Your task to perform on an android device: Open location settings Image 0: 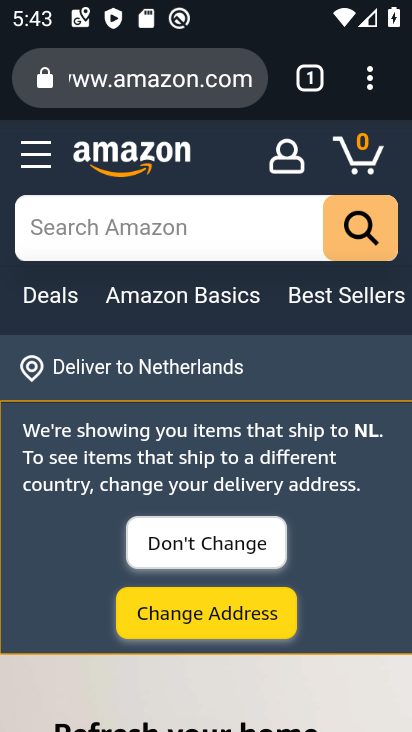
Step 0: press home button
Your task to perform on an android device: Open location settings Image 1: 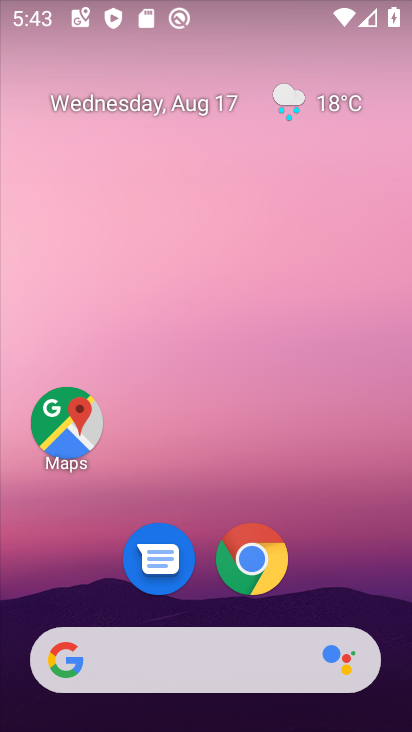
Step 1: drag from (252, 635) to (189, 46)
Your task to perform on an android device: Open location settings Image 2: 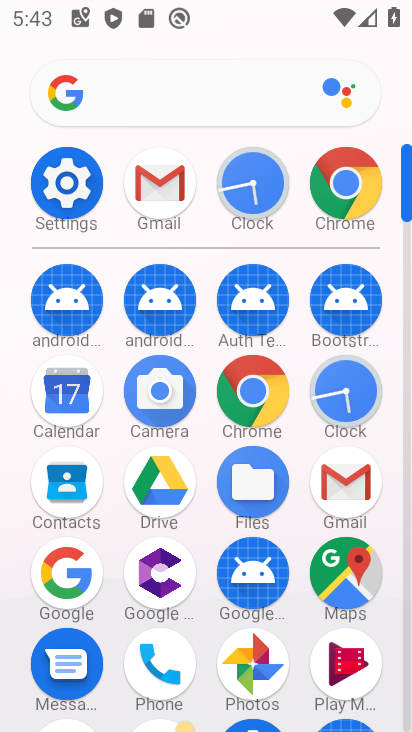
Step 2: click (80, 160)
Your task to perform on an android device: Open location settings Image 3: 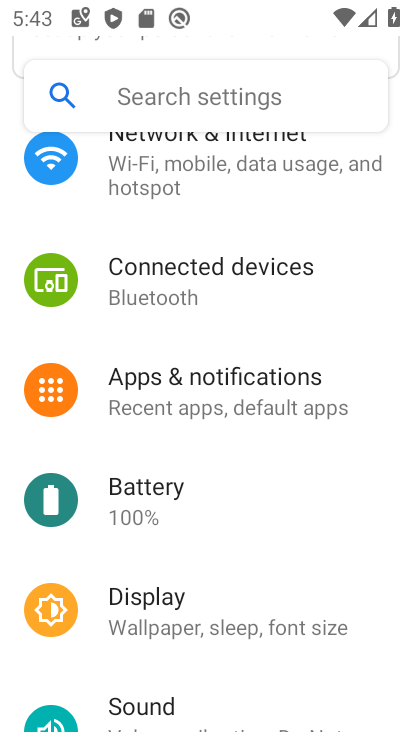
Step 3: drag from (193, 663) to (175, 185)
Your task to perform on an android device: Open location settings Image 4: 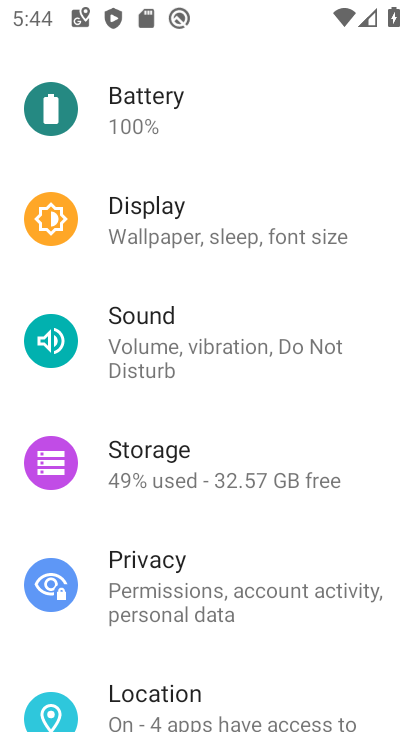
Step 4: click (127, 694)
Your task to perform on an android device: Open location settings Image 5: 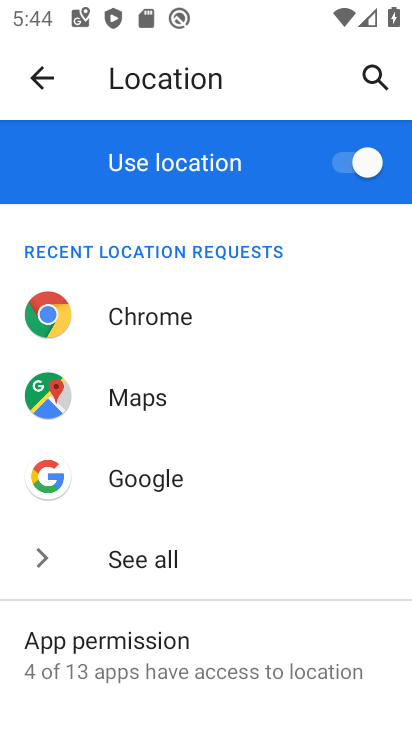
Step 5: task complete